Your task to perform on an android device: turn pop-ups off in chrome Image 0: 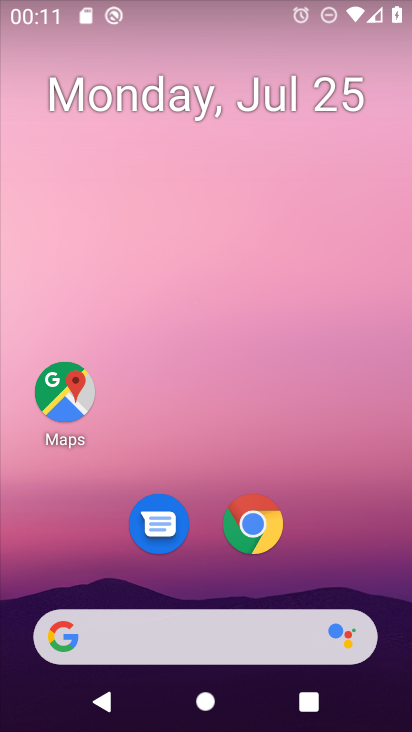
Step 0: click (248, 532)
Your task to perform on an android device: turn pop-ups off in chrome Image 1: 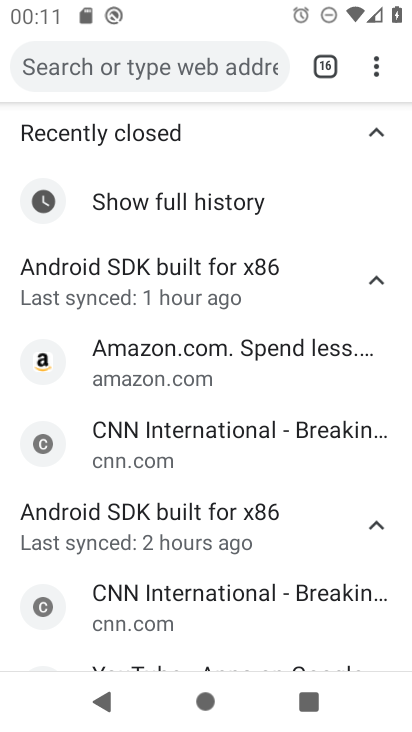
Step 1: drag from (373, 71) to (244, 552)
Your task to perform on an android device: turn pop-ups off in chrome Image 2: 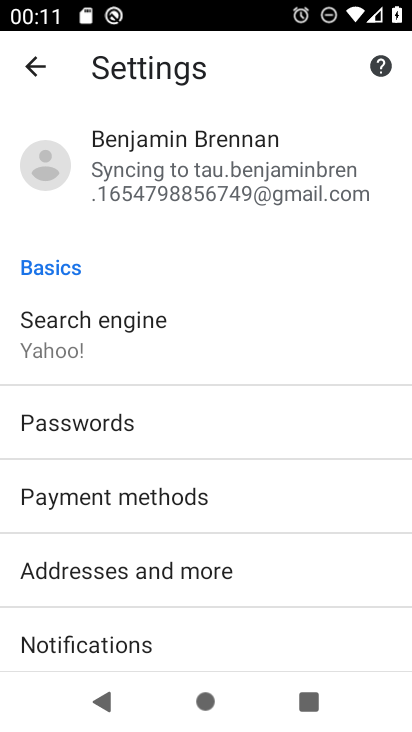
Step 2: drag from (224, 620) to (317, 100)
Your task to perform on an android device: turn pop-ups off in chrome Image 3: 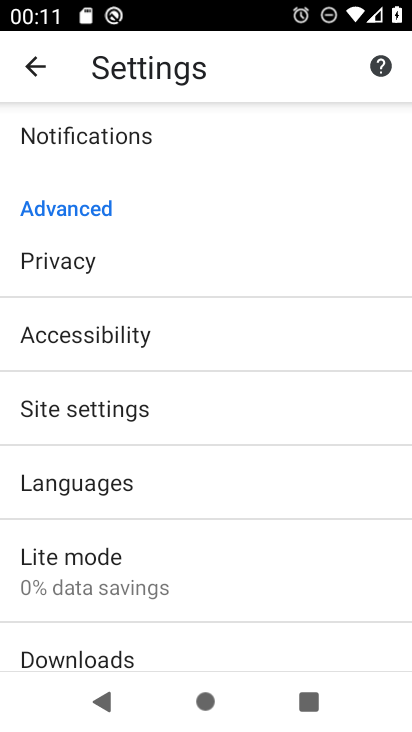
Step 3: click (114, 428)
Your task to perform on an android device: turn pop-ups off in chrome Image 4: 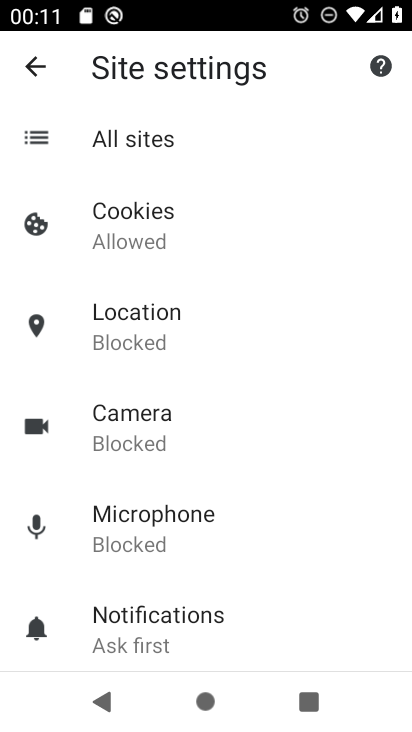
Step 4: drag from (228, 623) to (322, 196)
Your task to perform on an android device: turn pop-ups off in chrome Image 5: 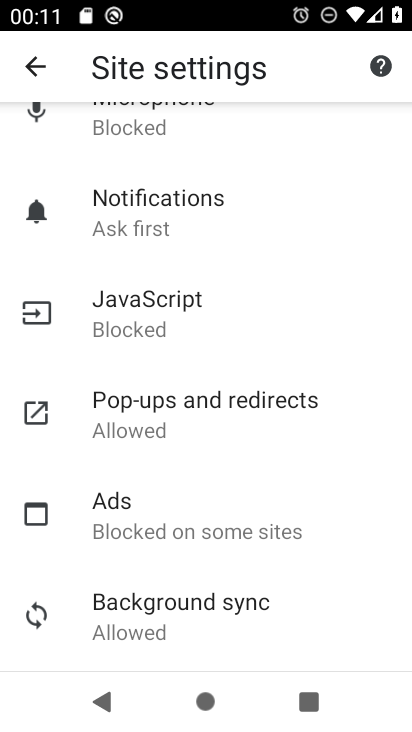
Step 5: click (205, 419)
Your task to perform on an android device: turn pop-ups off in chrome Image 6: 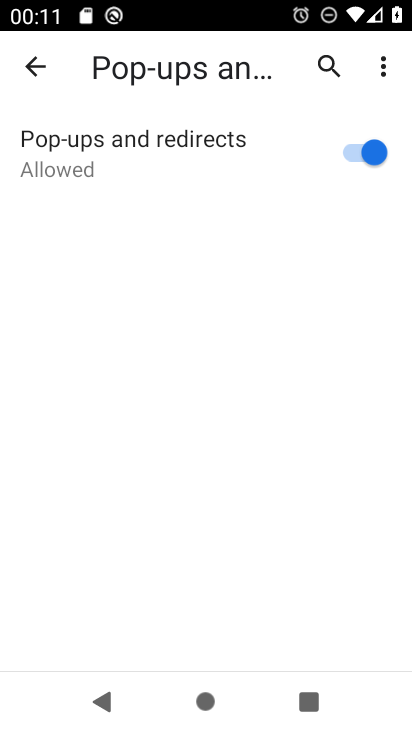
Step 6: click (360, 148)
Your task to perform on an android device: turn pop-ups off in chrome Image 7: 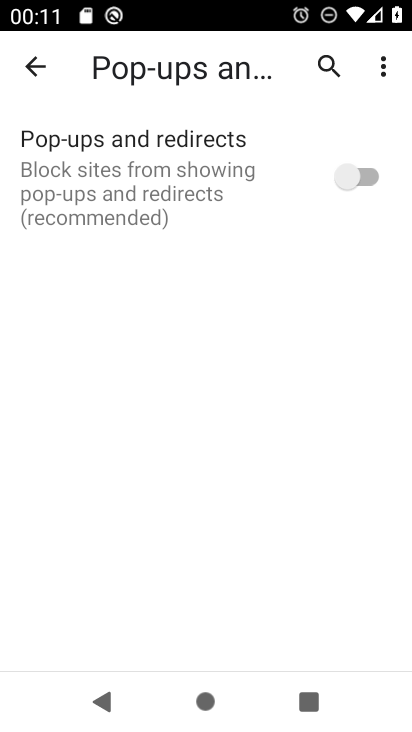
Step 7: task complete